Your task to perform on an android device: check battery use Image 0: 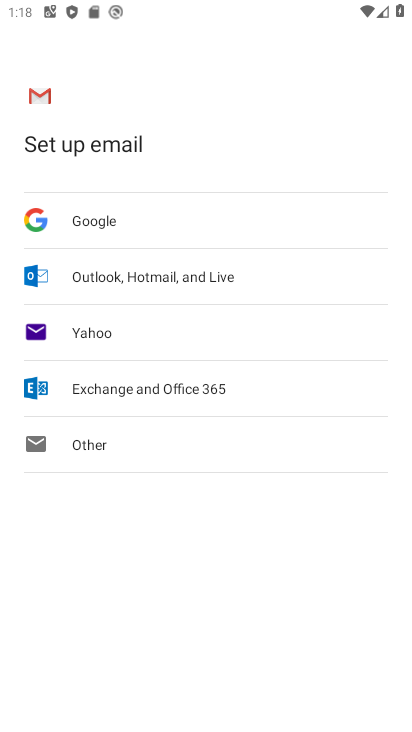
Step 0: press back button
Your task to perform on an android device: check battery use Image 1: 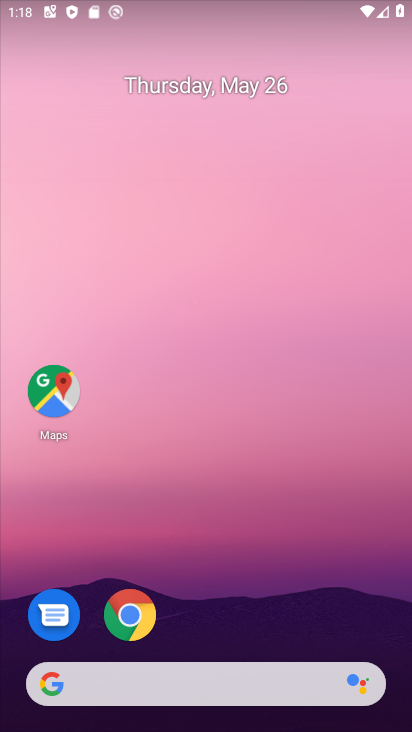
Step 1: drag from (255, 585) to (281, 25)
Your task to perform on an android device: check battery use Image 2: 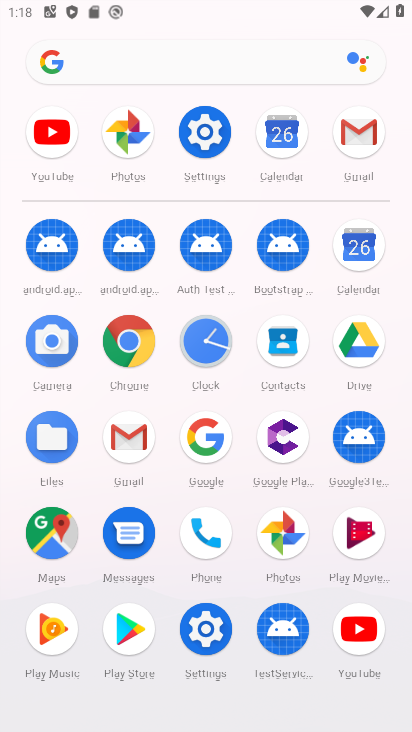
Step 2: click (204, 117)
Your task to perform on an android device: check battery use Image 3: 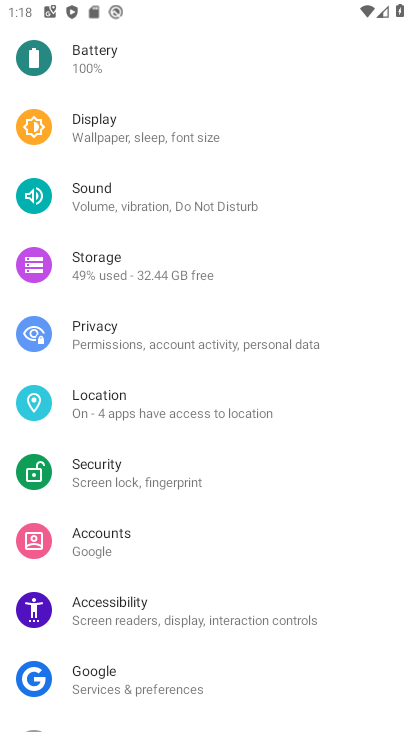
Step 3: click (123, 56)
Your task to perform on an android device: check battery use Image 4: 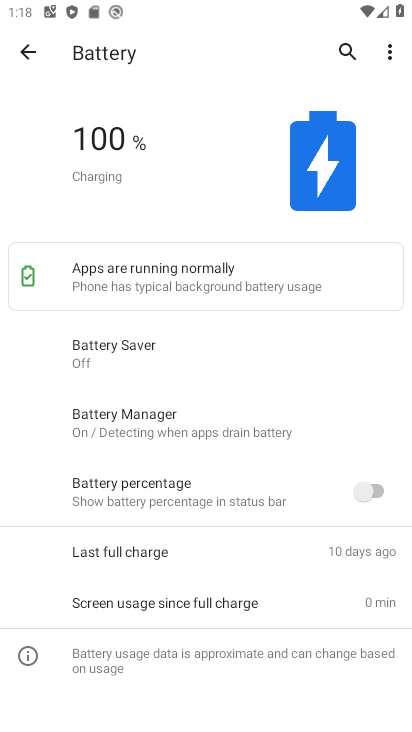
Step 4: click (388, 49)
Your task to perform on an android device: check battery use Image 5: 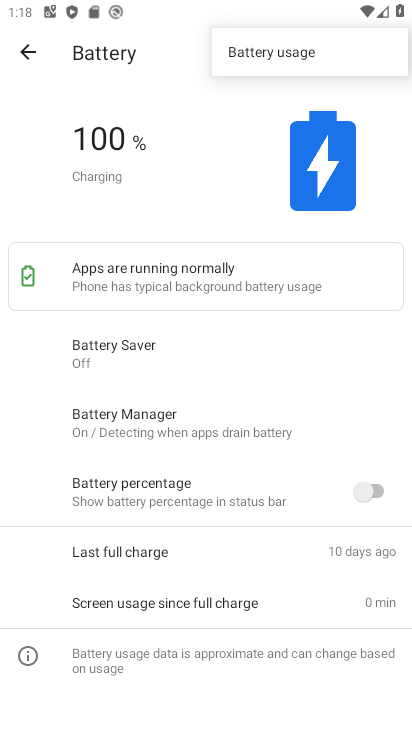
Step 5: click (316, 56)
Your task to perform on an android device: check battery use Image 6: 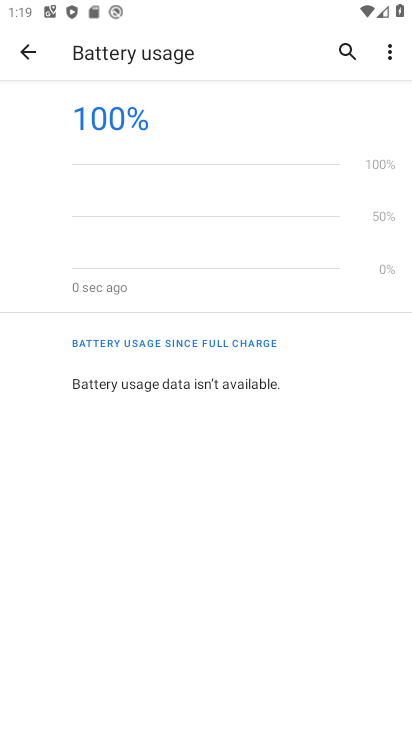
Step 6: task complete